Your task to perform on an android device: turn on location history Image 0: 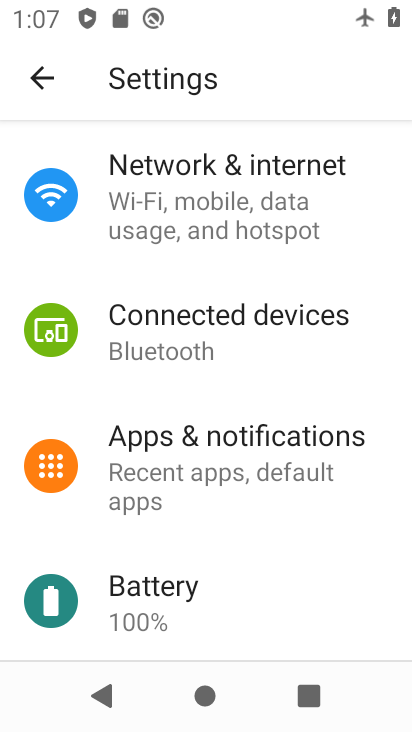
Step 0: drag from (334, 566) to (159, 23)
Your task to perform on an android device: turn on location history Image 1: 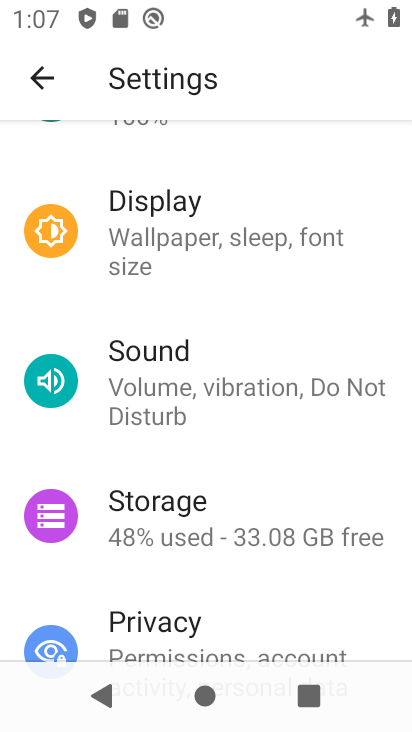
Step 1: drag from (227, 579) to (116, 62)
Your task to perform on an android device: turn on location history Image 2: 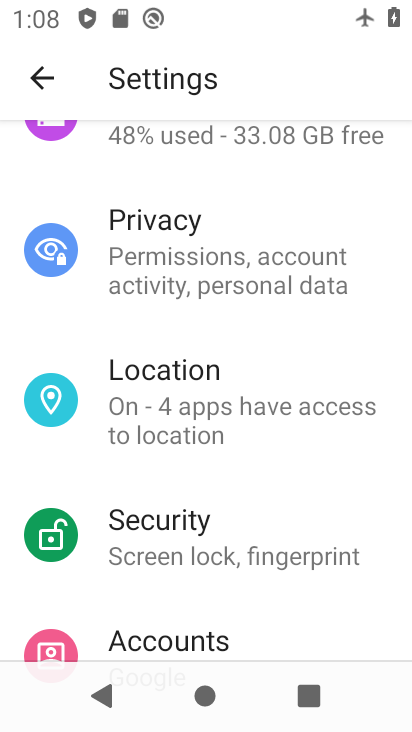
Step 2: click (159, 377)
Your task to perform on an android device: turn on location history Image 3: 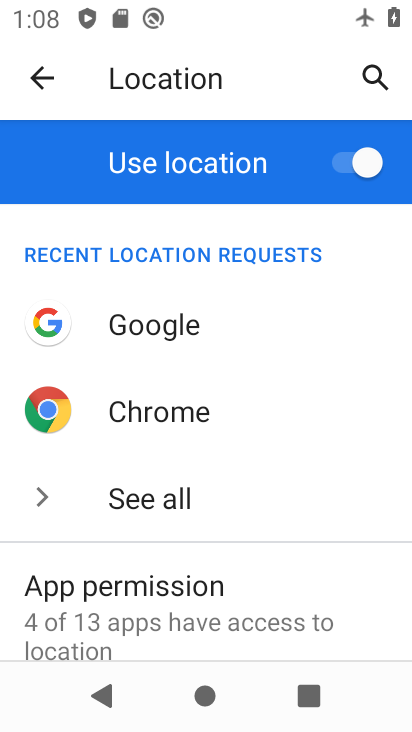
Step 3: drag from (303, 632) to (291, 235)
Your task to perform on an android device: turn on location history Image 4: 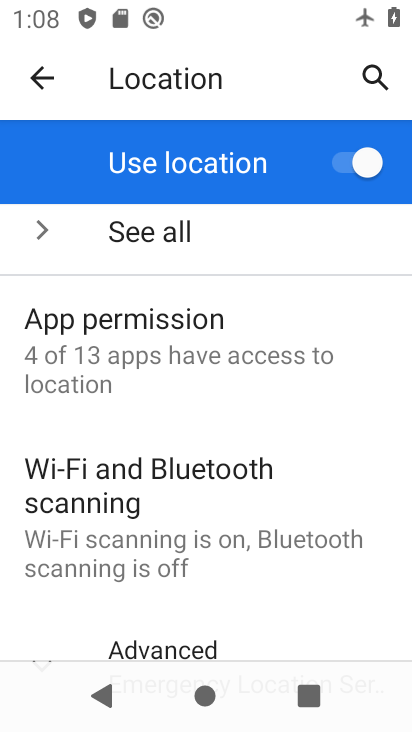
Step 4: press home button
Your task to perform on an android device: turn on location history Image 5: 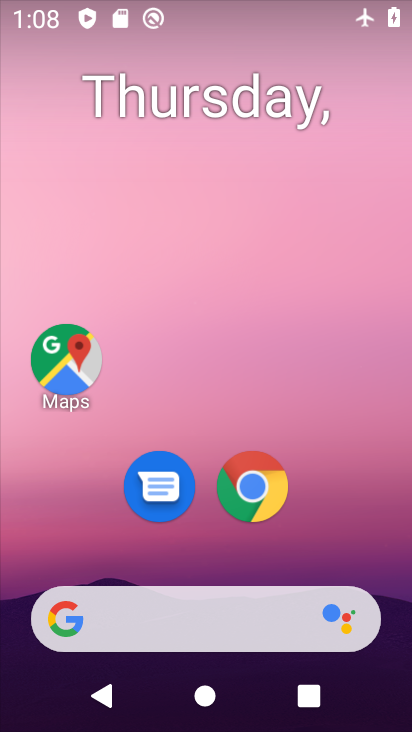
Step 5: click (45, 352)
Your task to perform on an android device: turn on location history Image 6: 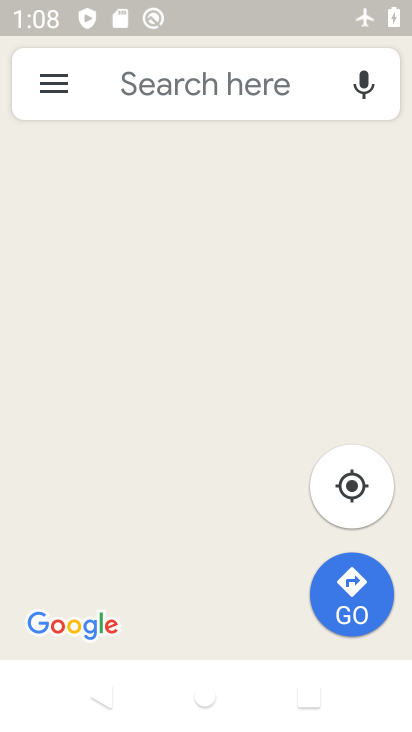
Step 6: click (53, 82)
Your task to perform on an android device: turn on location history Image 7: 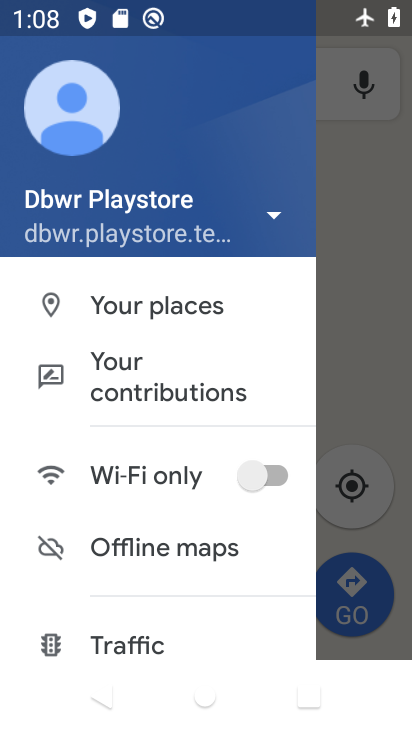
Step 7: task complete